Your task to perform on an android device: open wifi settings Image 0: 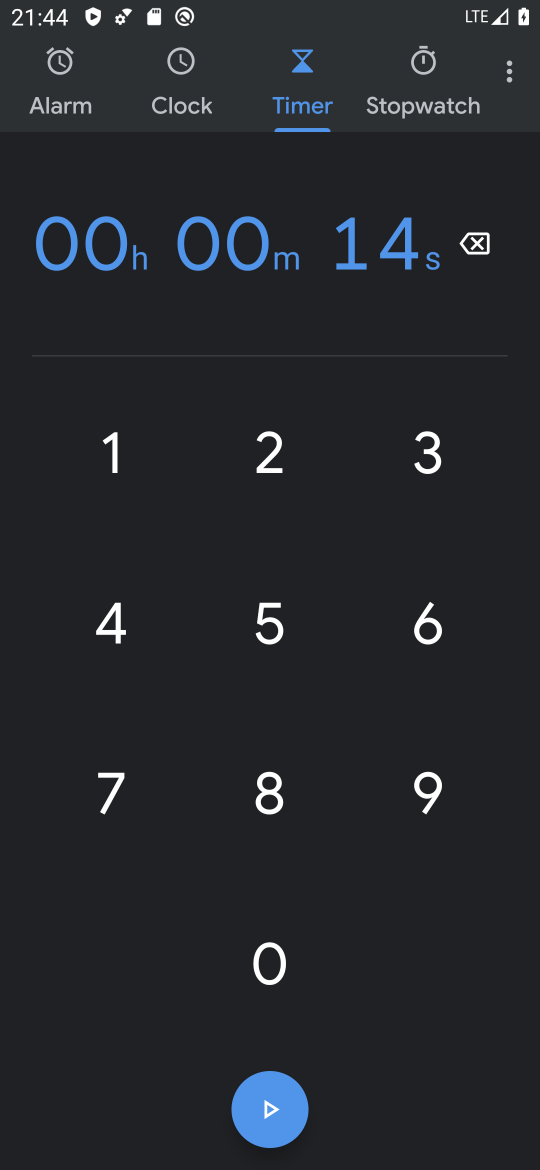
Step 0: press home button
Your task to perform on an android device: open wifi settings Image 1: 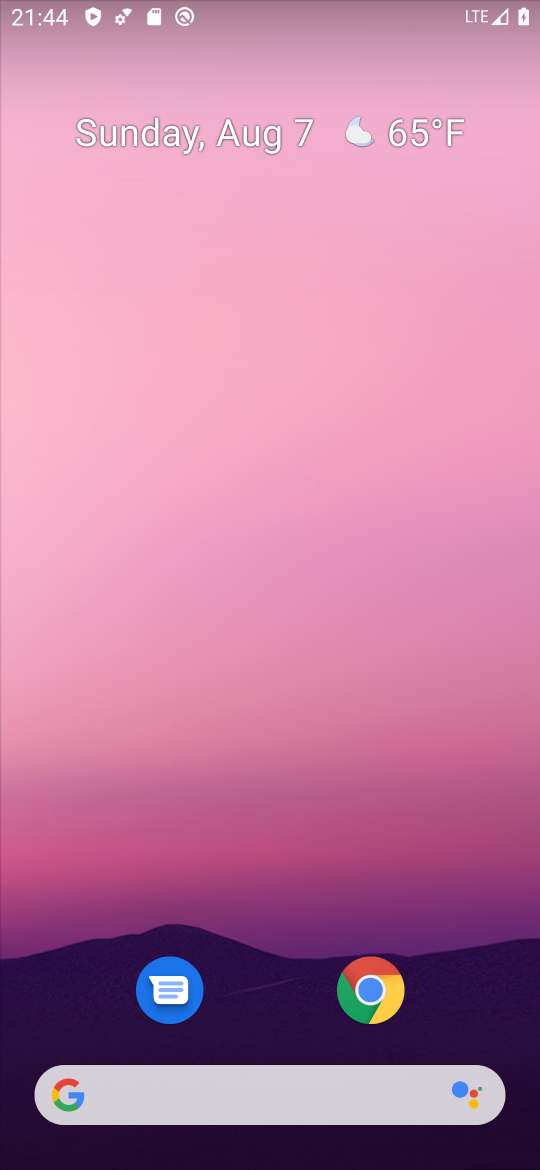
Step 1: drag from (293, 835) to (365, 4)
Your task to perform on an android device: open wifi settings Image 2: 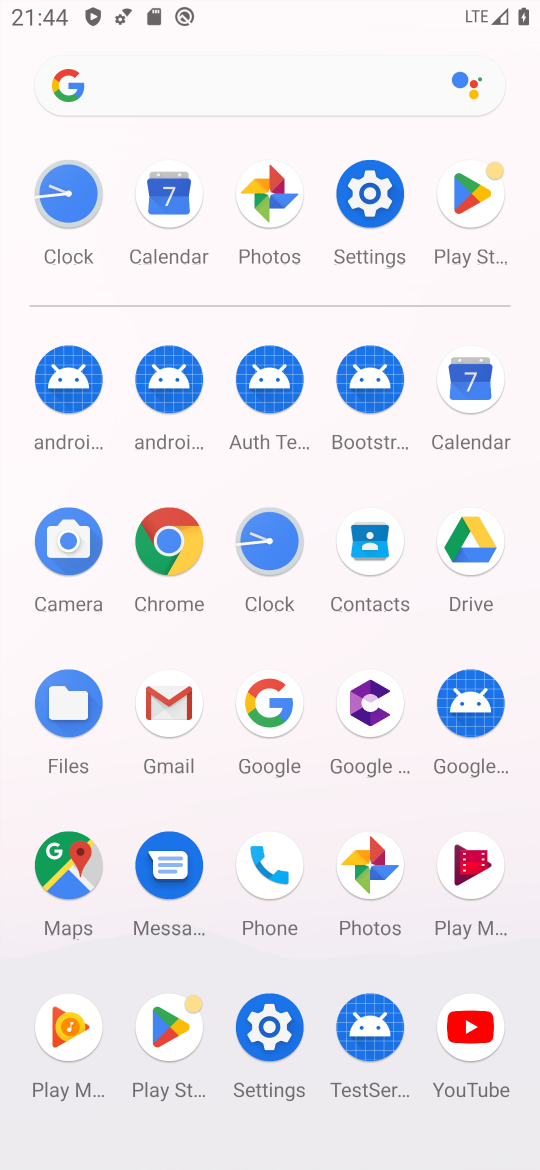
Step 2: click (376, 180)
Your task to perform on an android device: open wifi settings Image 3: 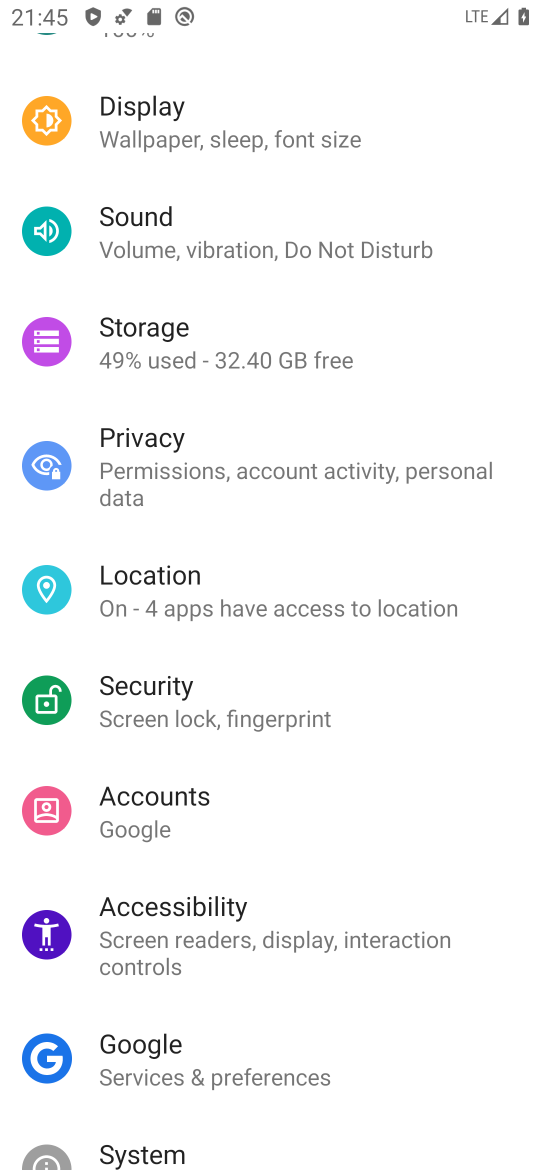
Step 3: drag from (356, 345) to (313, 1009)
Your task to perform on an android device: open wifi settings Image 4: 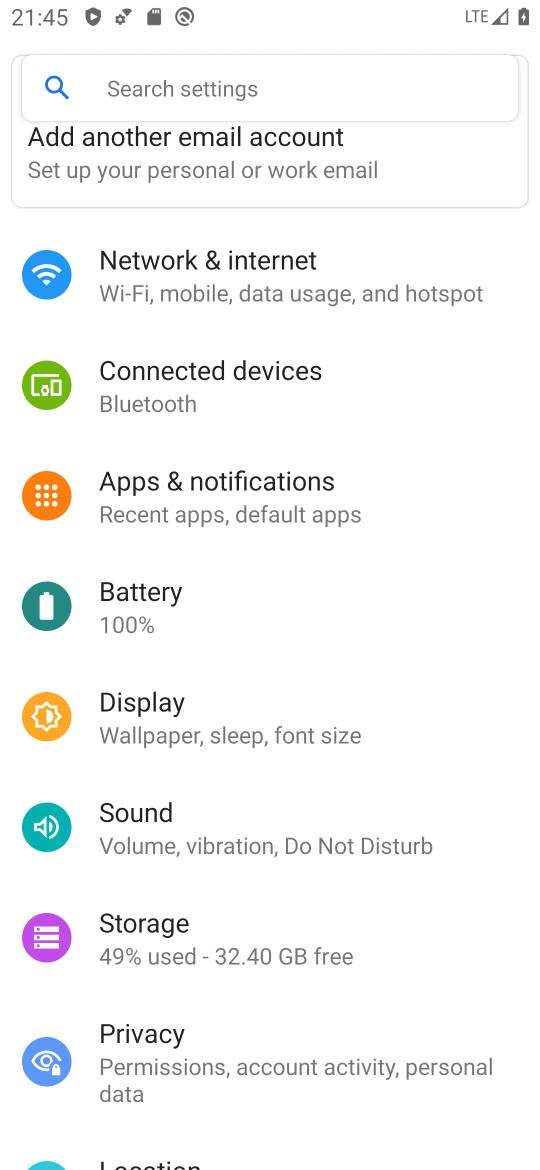
Step 4: click (197, 247)
Your task to perform on an android device: open wifi settings Image 5: 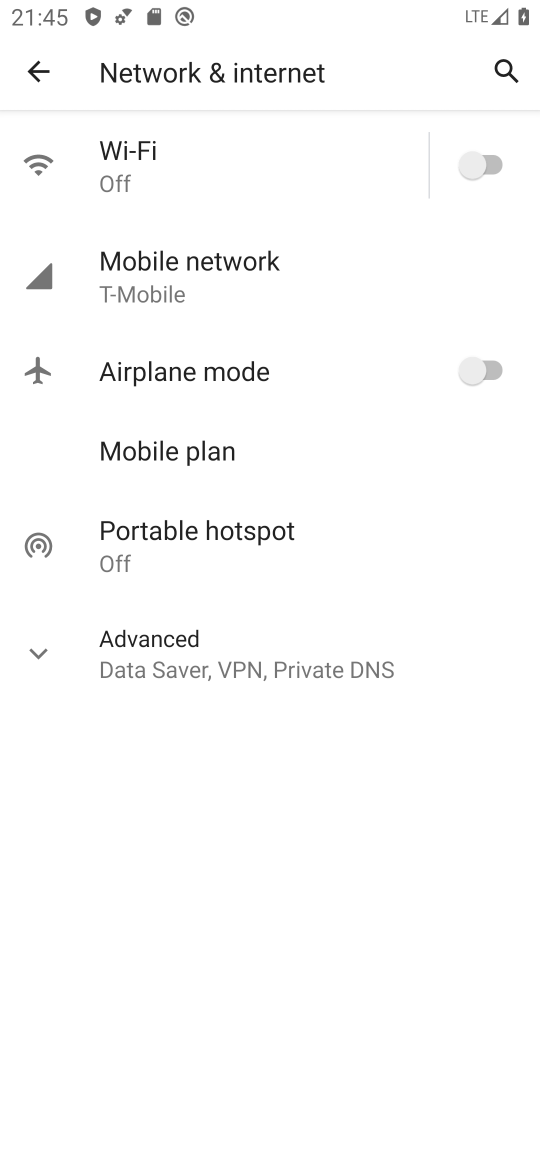
Step 5: click (123, 166)
Your task to perform on an android device: open wifi settings Image 6: 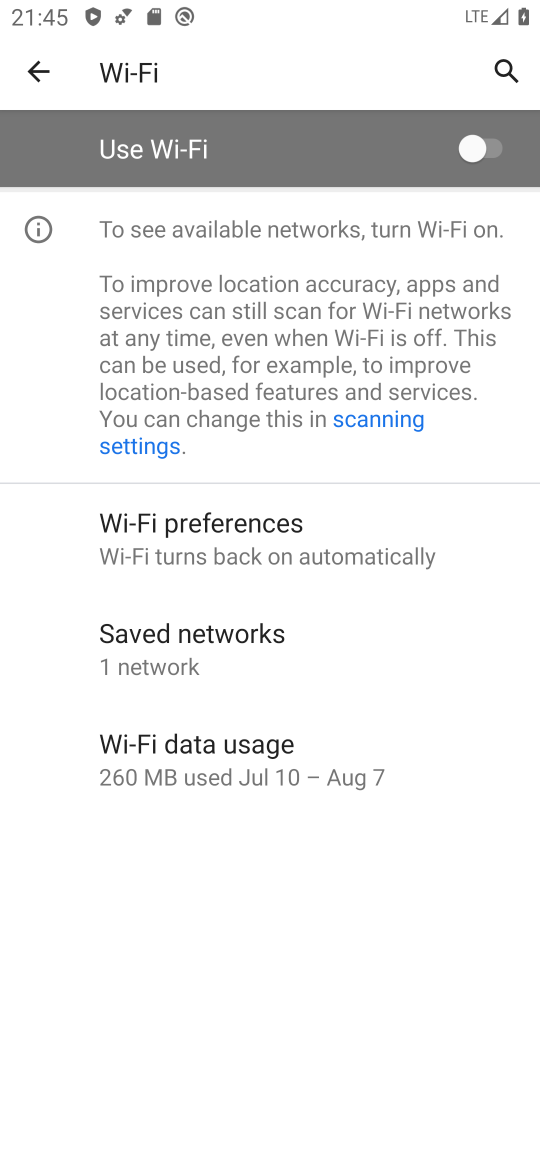
Step 6: task complete